Your task to perform on an android device: read, delete, or share a saved page in the chrome app Image 0: 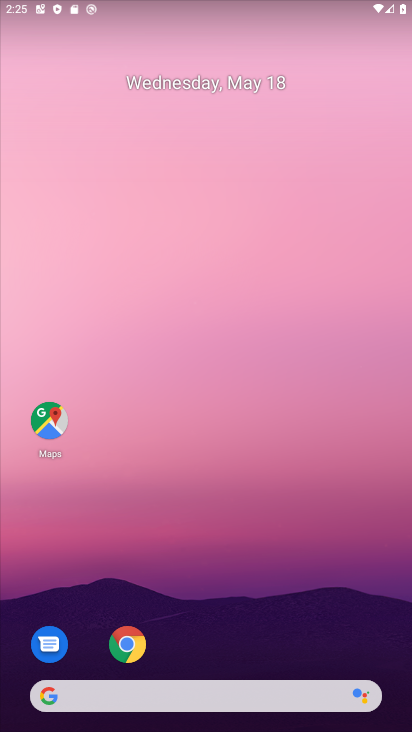
Step 0: click (127, 644)
Your task to perform on an android device: read, delete, or share a saved page in the chrome app Image 1: 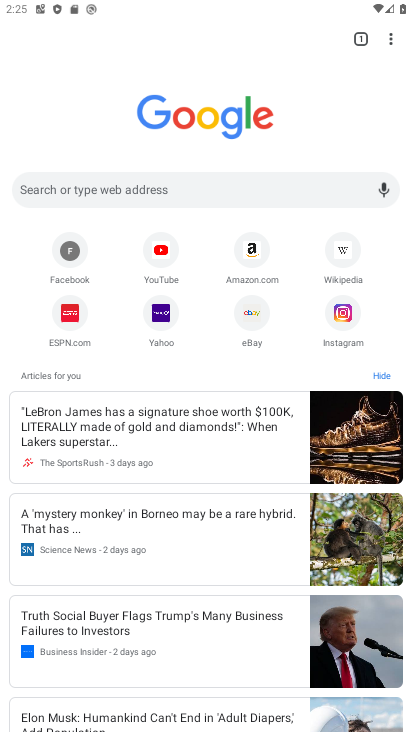
Step 1: click (392, 32)
Your task to perform on an android device: read, delete, or share a saved page in the chrome app Image 2: 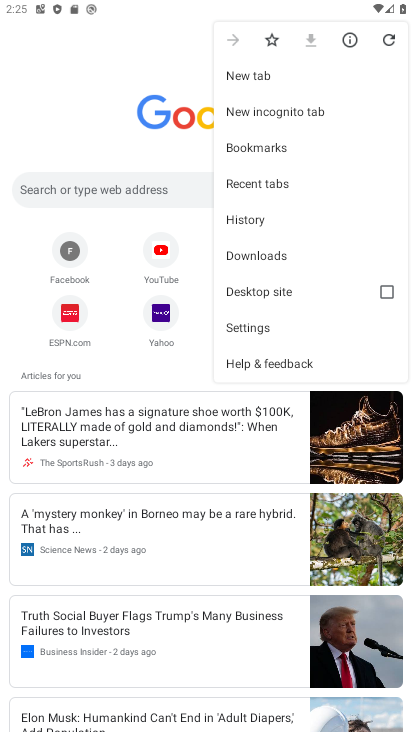
Step 2: click (299, 257)
Your task to perform on an android device: read, delete, or share a saved page in the chrome app Image 3: 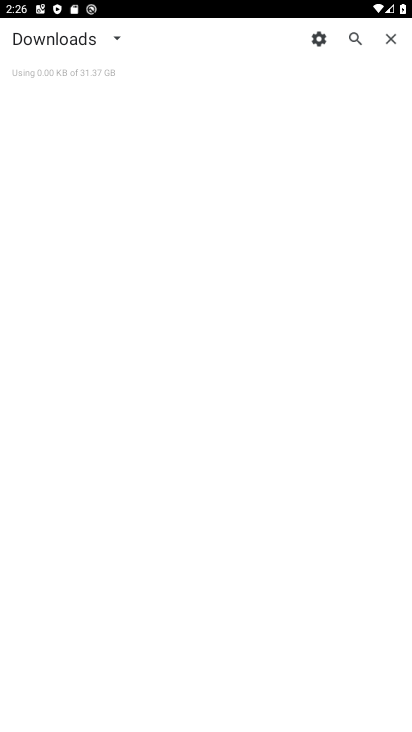
Step 3: task complete